Your task to perform on an android device: Open sound settings Image 0: 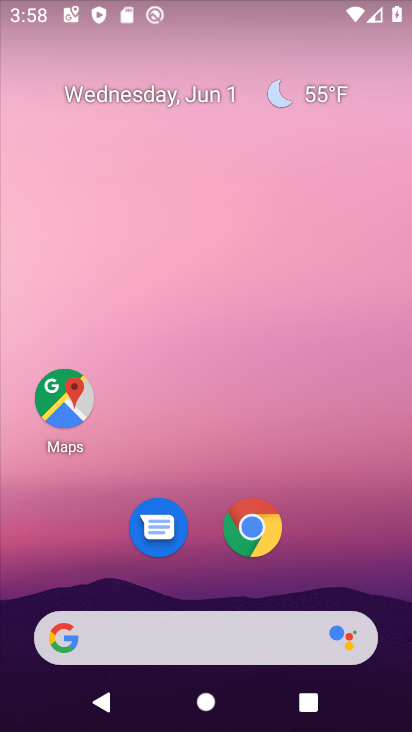
Step 0: drag from (341, 495) to (322, 95)
Your task to perform on an android device: Open sound settings Image 1: 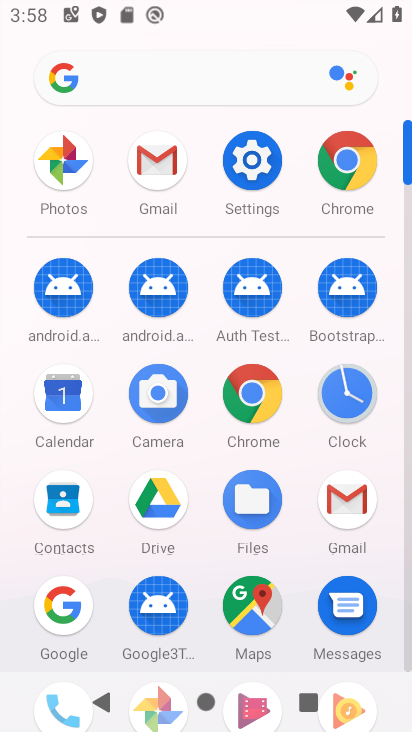
Step 1: click (254, 154)
Your task to perform on an android device: Open sound settings Image 2: 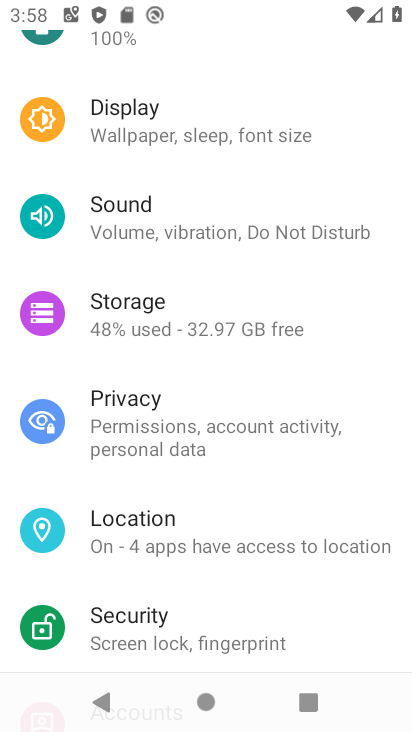
Step 2: click (98, 208)
Your task to perform on an android device: Open sound settings Image 3: 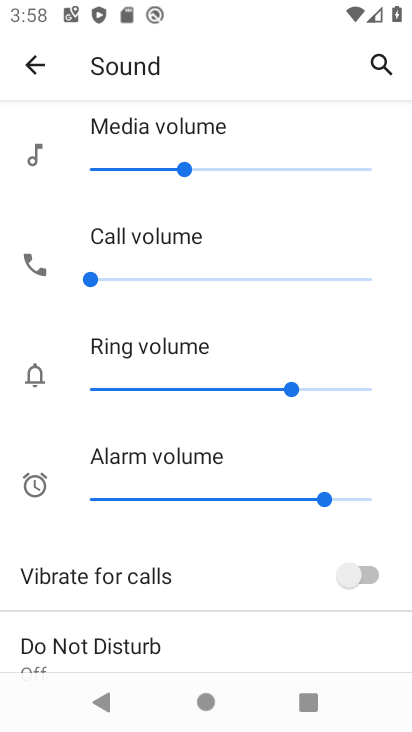
Step 3: task complete